Your task to perform on an android device: What's on the menu at Papa John's? Image 0: 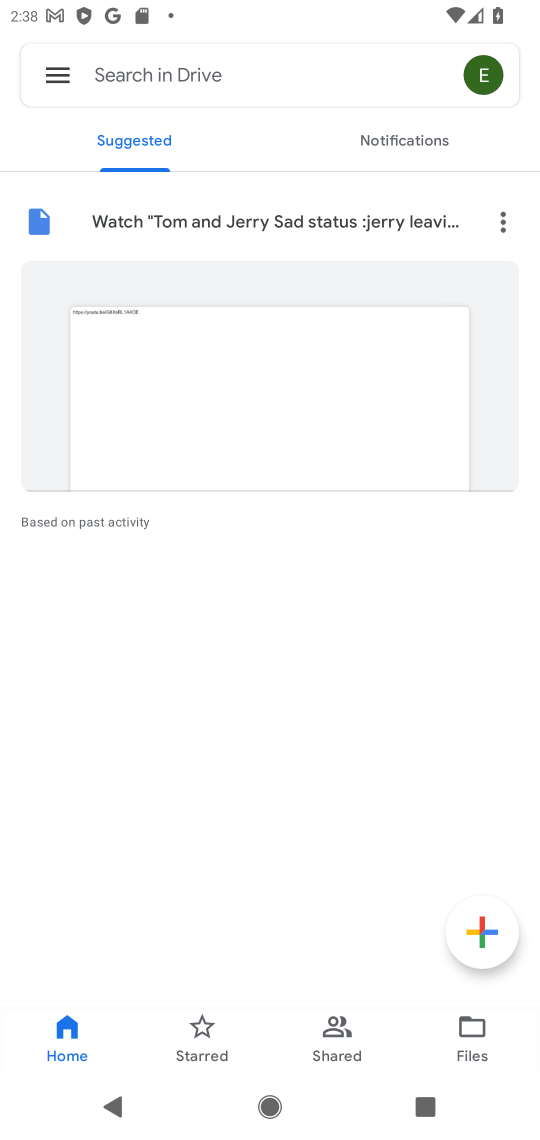
Step 0: press home button
Your task to perform on an android device: What's on the menu at Papa John's? Image 1: 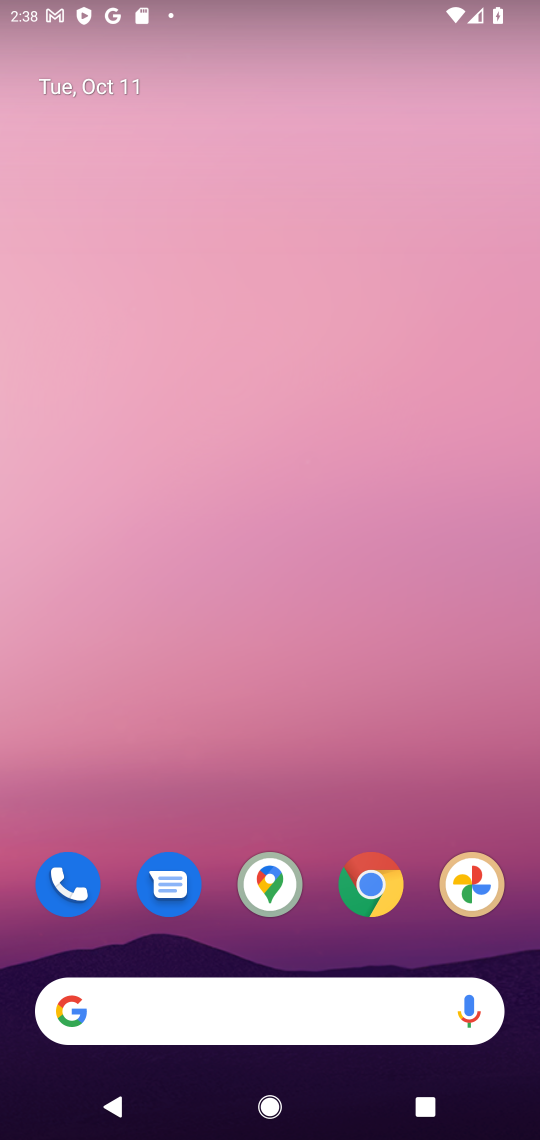
Step 1: click (372, 887)
Your task to perform on an android device: What's on the menu at Papa John's? Image 2: 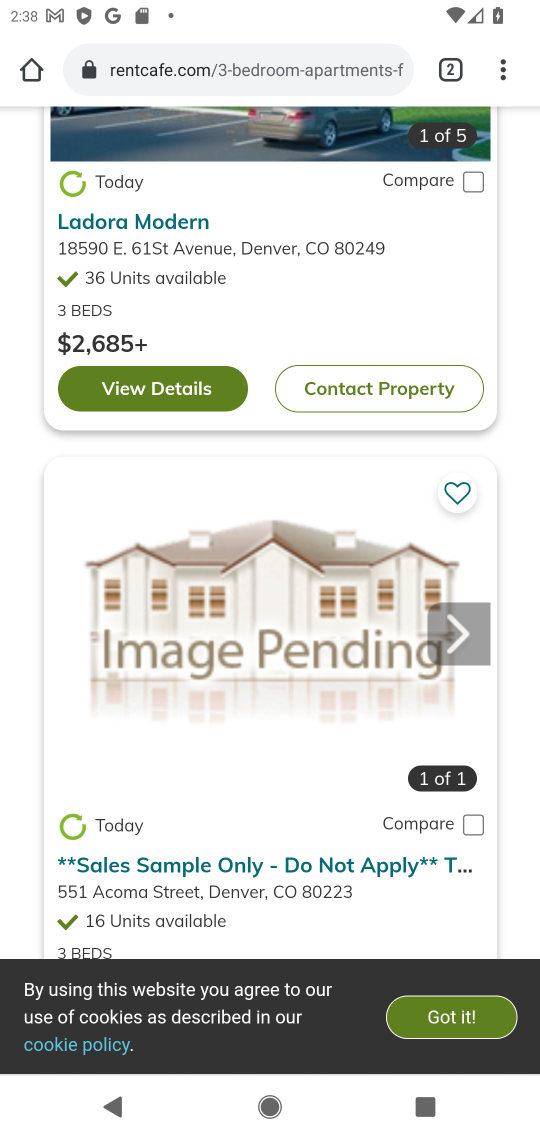
Step 2: click (295, 79)
Your task to perform on an android device: What's on the menu at Papa John's? Image 3: 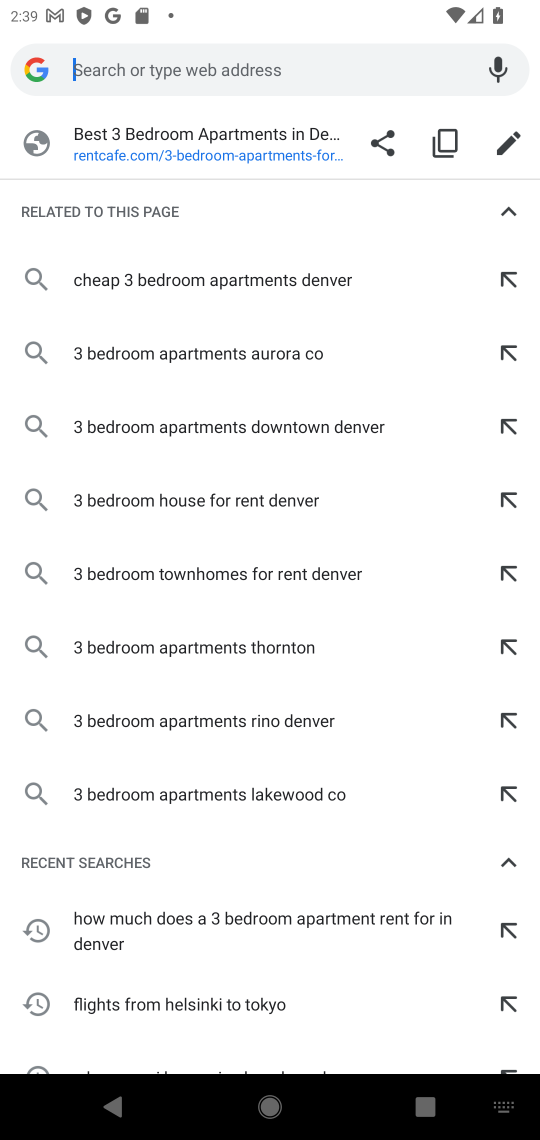
Step 3: type "menu at Papa John's"
Your task to perform on an android device: What's on the menu at Papa John's? Image 4: 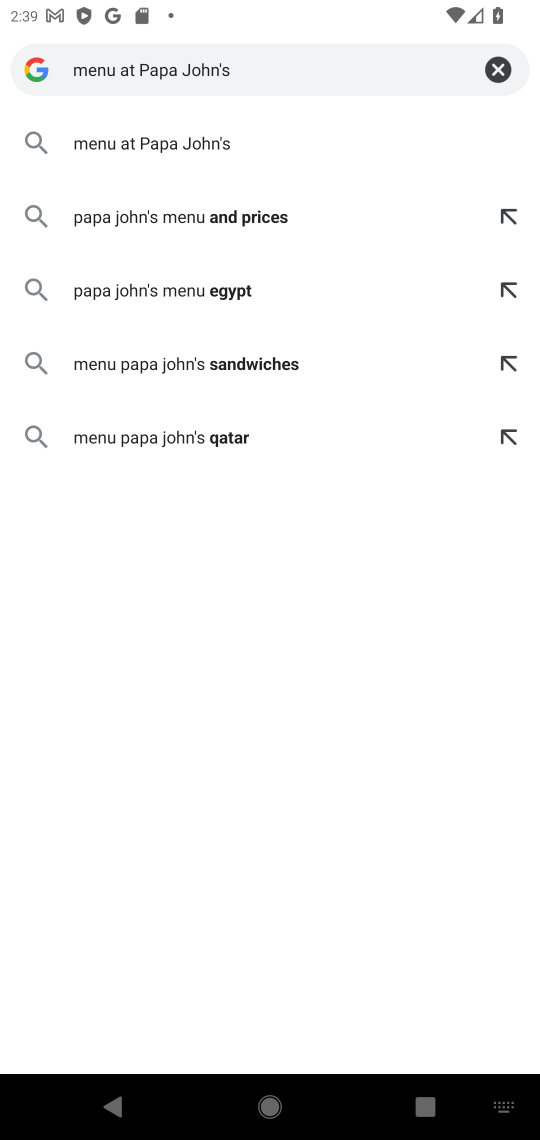
Step 4: click (146, 149)
Your task to perform on an android device: What's on the menu at Papa John's? Image 5: 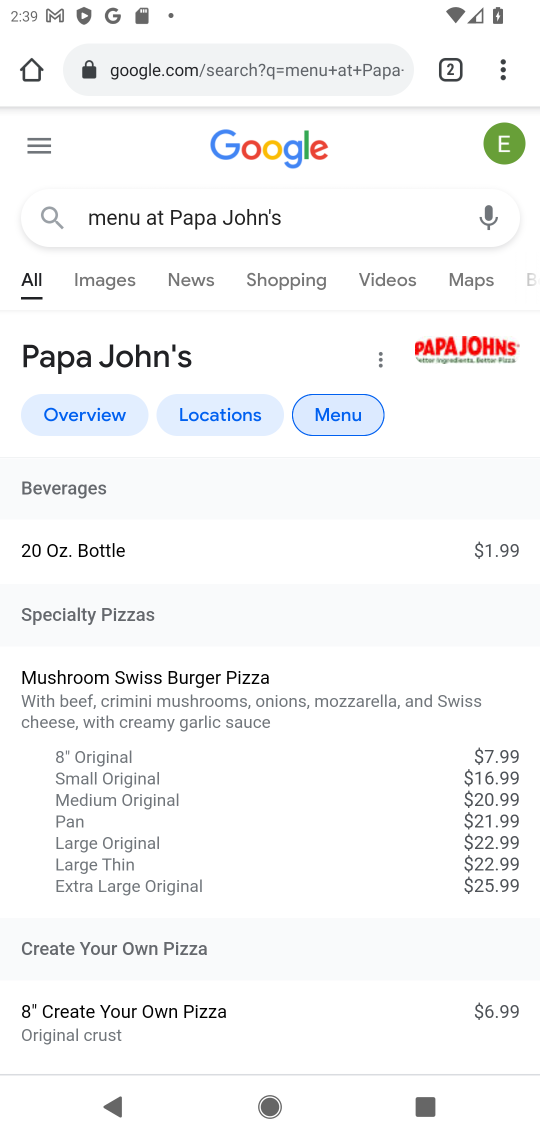
Step 5: drag from (155, 876) to (267, 712)
Your task to perform on an android device: What's on the menu at Papa John's? Image 6: 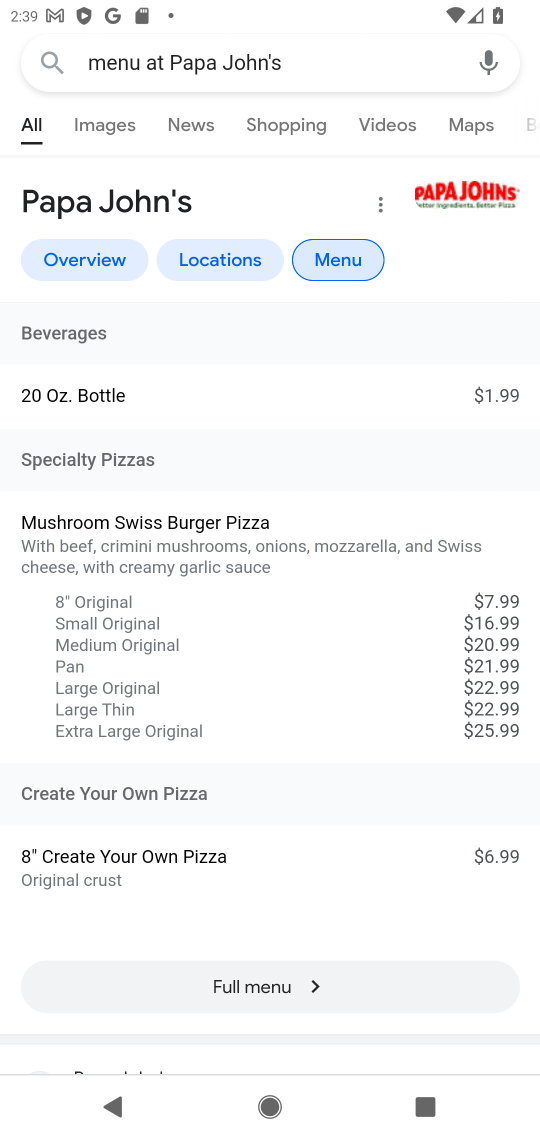
Step 6: click (257, 993)
Your task to perform on an android device: What's on the menu at Papa John's? Image 7: 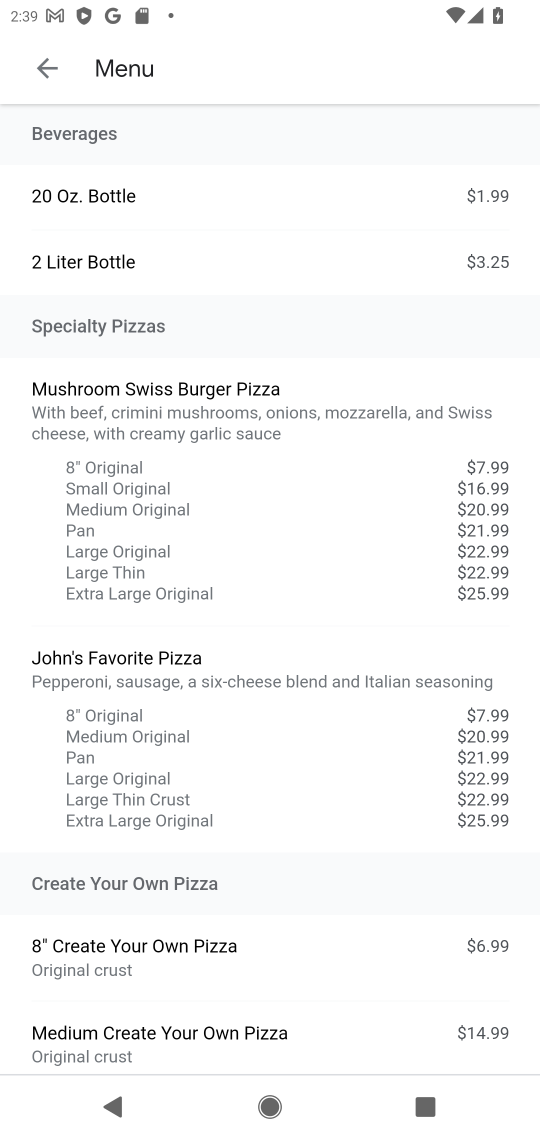
Step 7: task complete